Your task to perform on an android device: open sync settings in chrome Image 0: 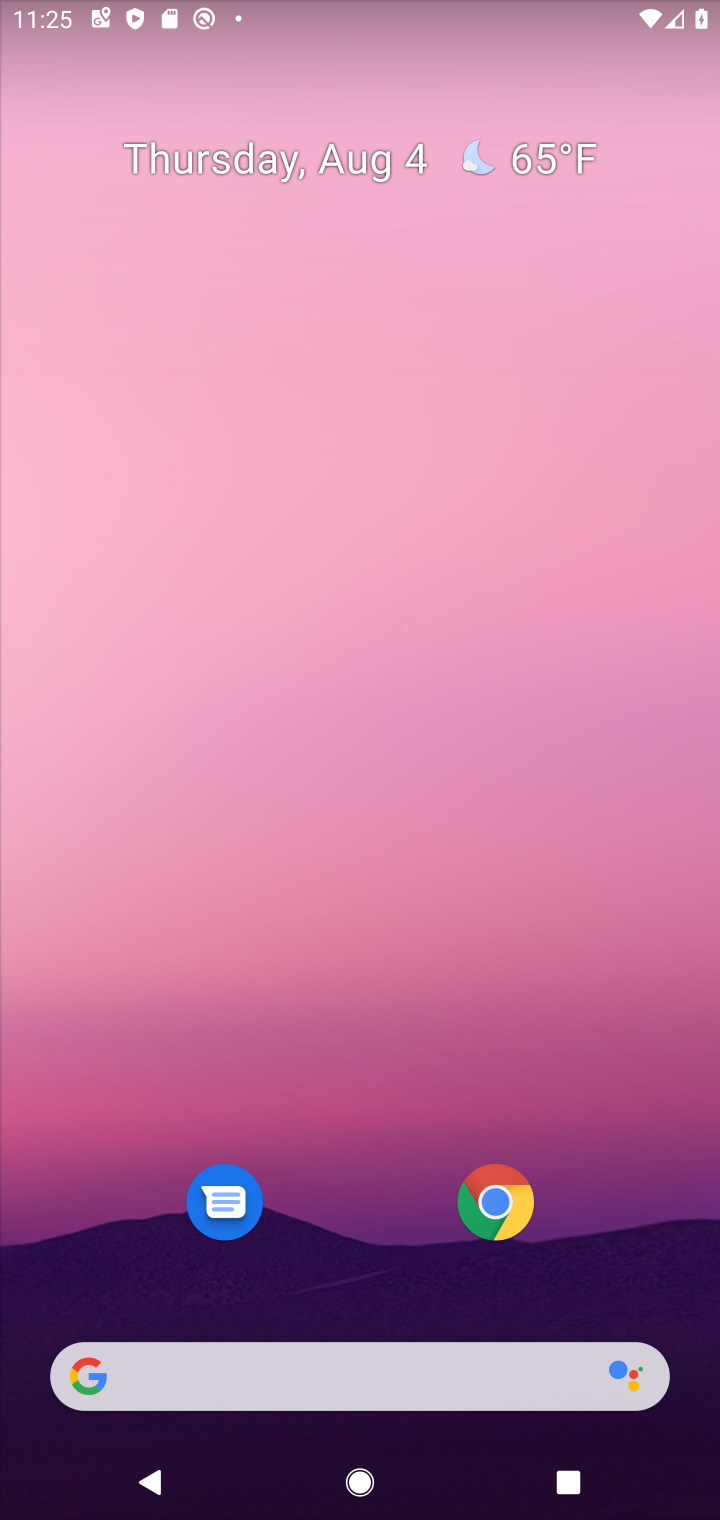
Step 0: click (510, 1224)
Your task to perform on an android device: open sync settings in chrome Image 1: 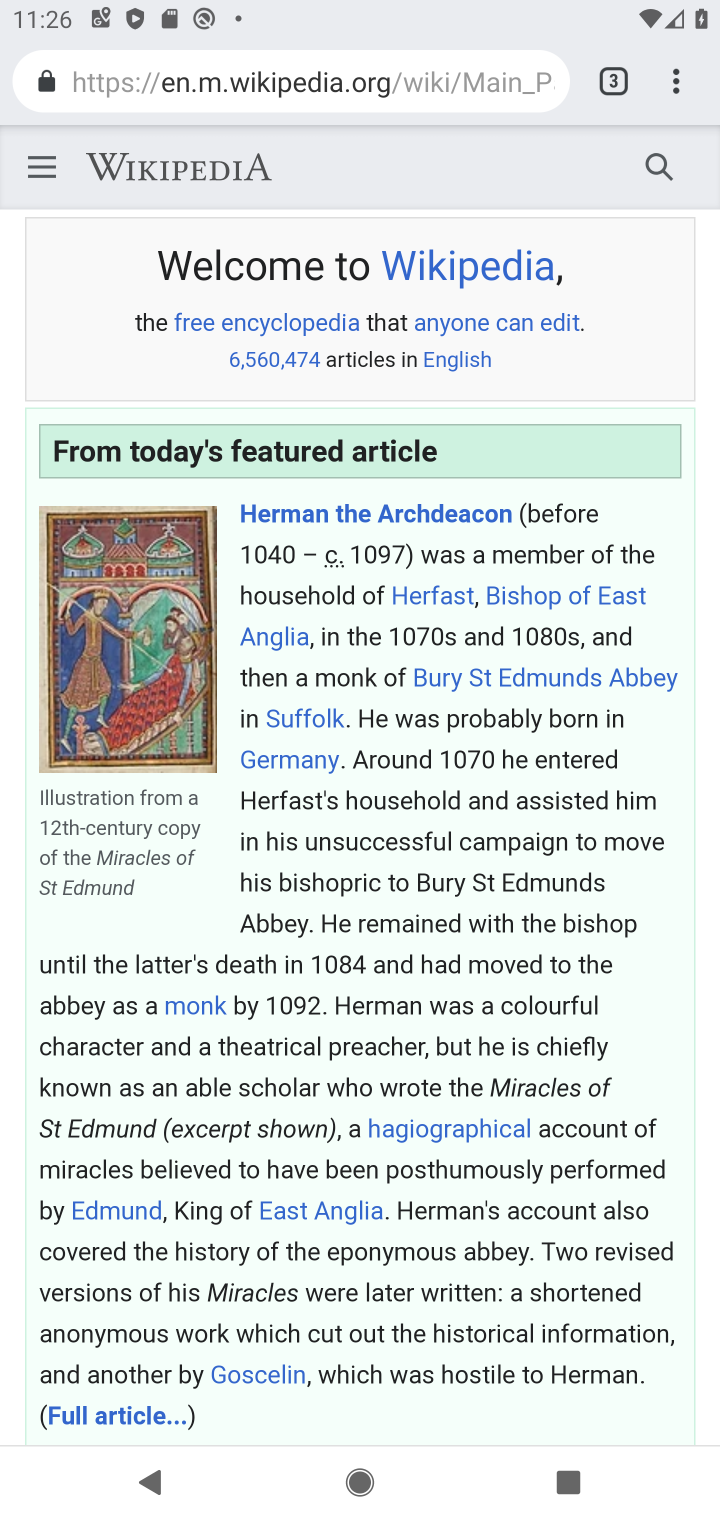
Step 1: drag from (678, 68) to (370, 993)
Your task to perform on an android device: open sync settings in chrome Image 2: 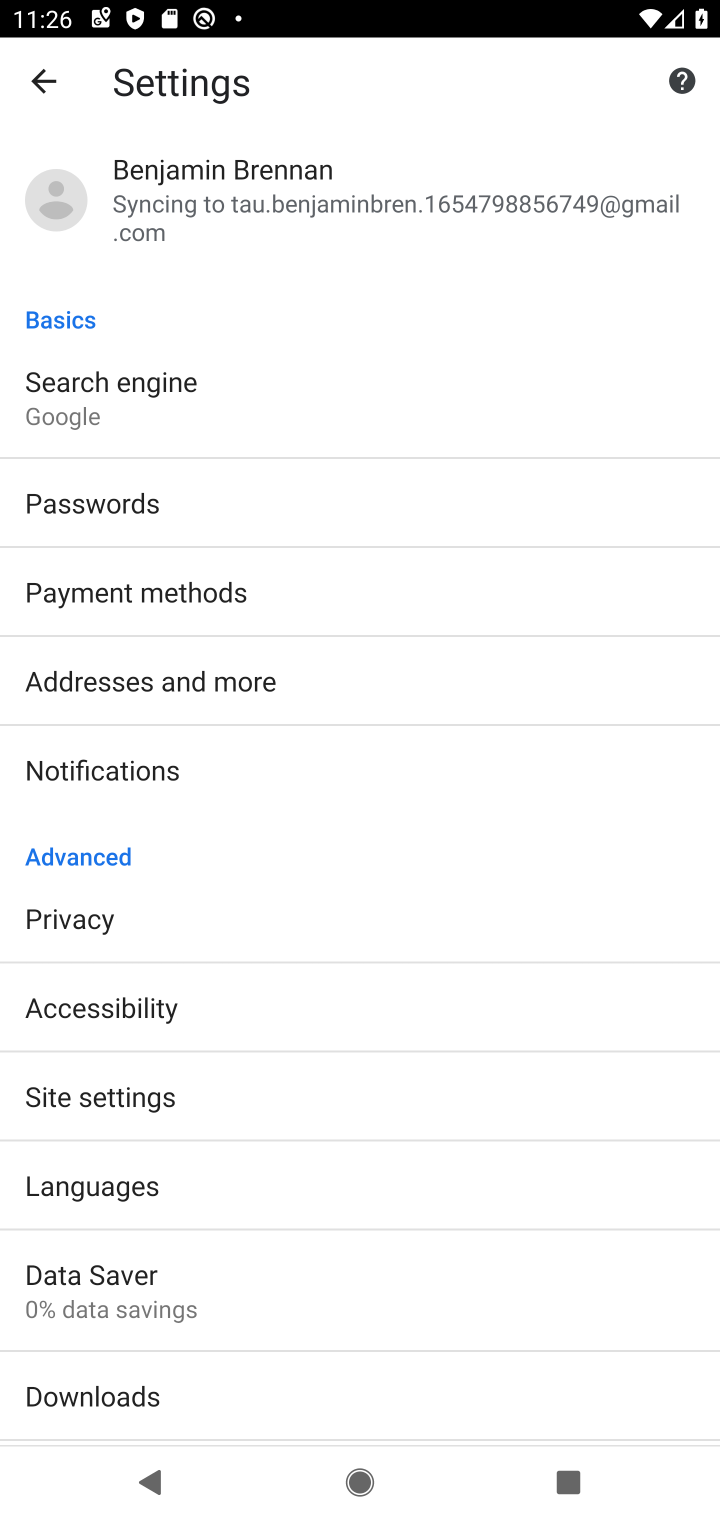
Step 2: click (446, 159)
Your task to perform on an android device: open sync settings in chrome Image 3: 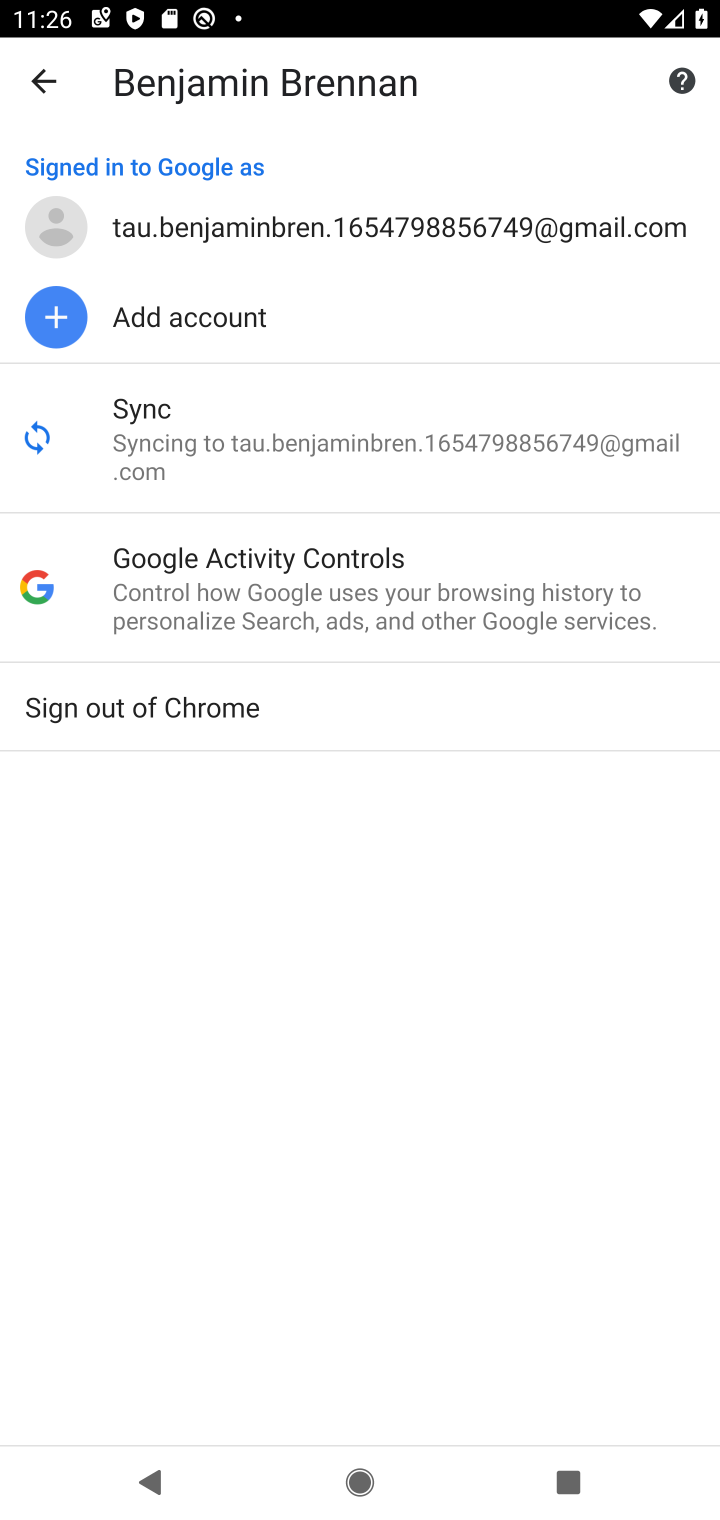
Step 3: task complete